Your task to perform on an android device: find photos in the google photos app Image 0: 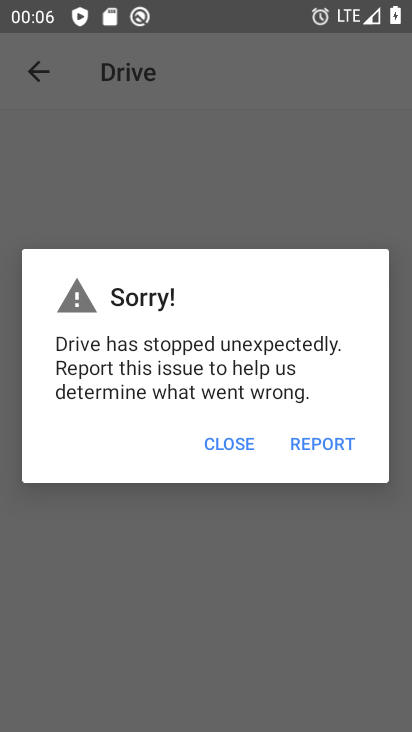
Step 0: press home button
Your task to perform on an android device: find photos in the google photos app Image 1: 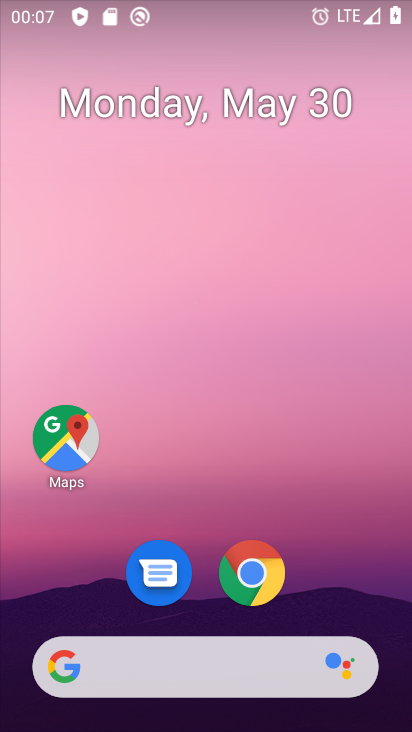
Step 1: drag from (352, 575) to (226, 10)
Your task to perform on an android device: find photos in the google photos app Image 2: 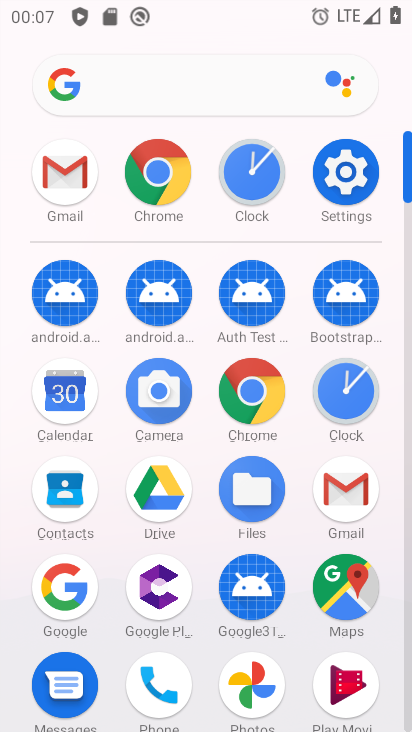
Step 2: click (254, 693)
Your task to perform on an android device: find photos in the google photos app Image 3: 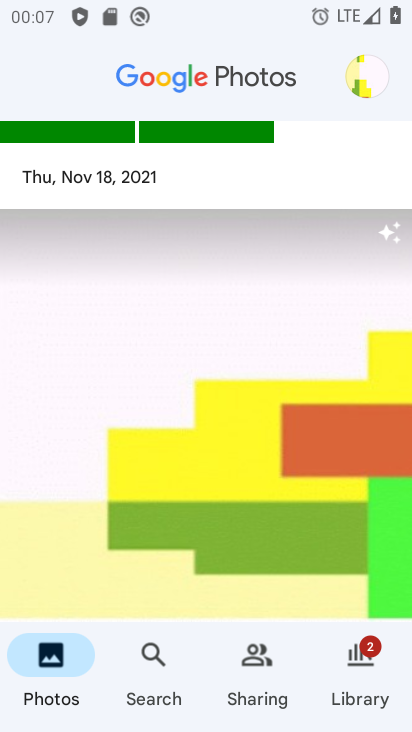
Step 3: task complete